Your task to perform on an android device: toggle location history Image 0: 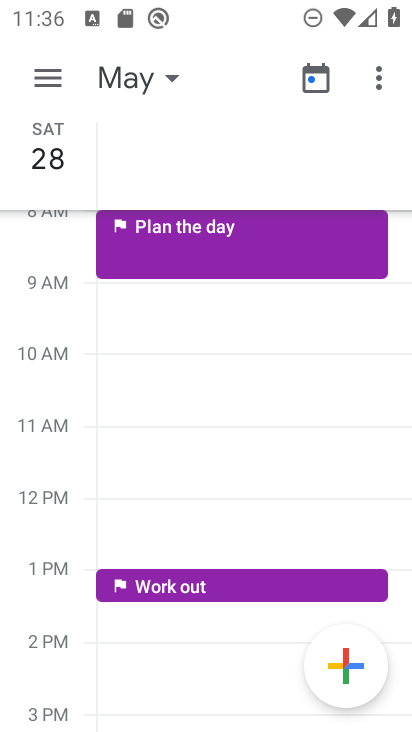
Step 0: press home button
Your task to perform on an android device: toggle location history Image 1: 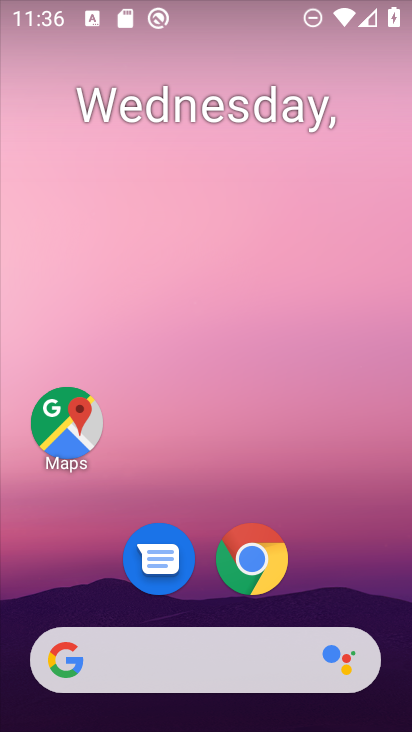
Step 1: drag from (216, 653) to (299, 193)
Your task to perform on an android device: toggle location history Image 2: 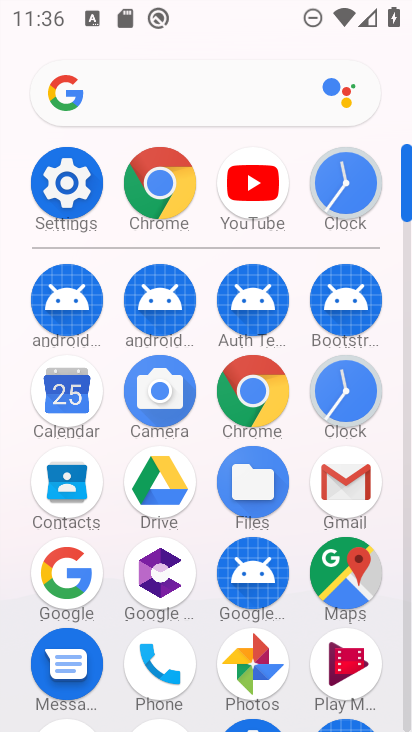
Step 2: click (82, 205)
Your task to perform on an android device: toggle location history Image 3: 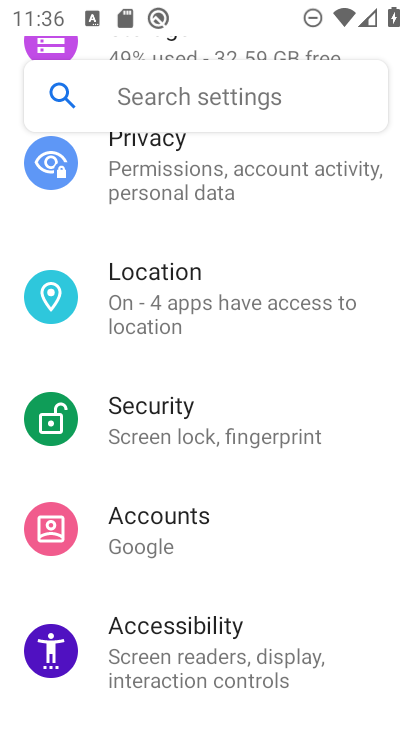
Step 3: click (210, 300)
Your task to perform on an android device: toggle location history Image 4: 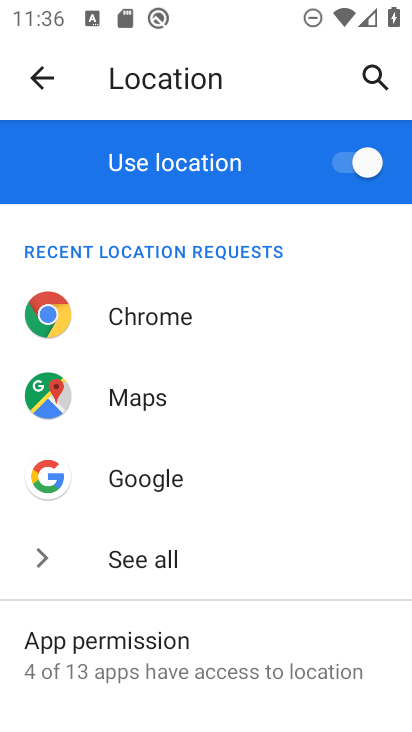
Step 4: drag from (207, 627) to (311, 153)
Your task to perform on an android device: toggle location history Image 5: 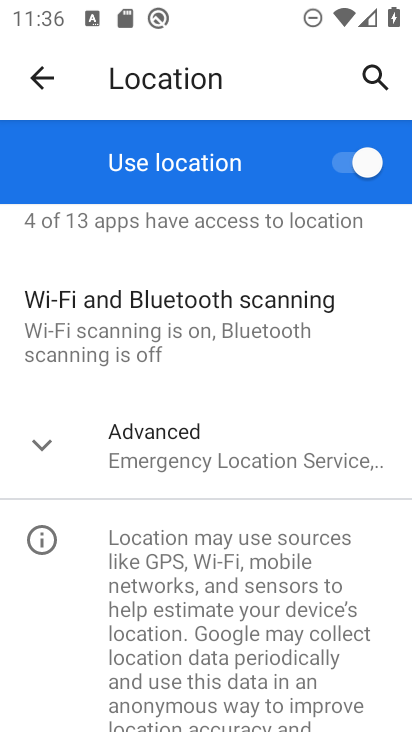
Step 5: click (221, 445)
Your task to perform on an android device: toggle location history Image 6: 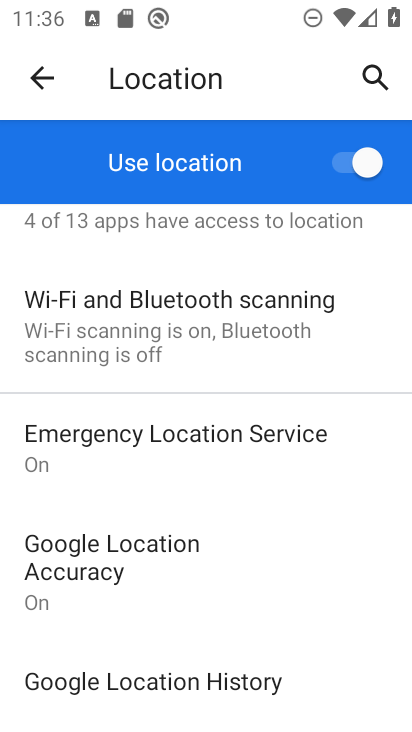
Step 6: click (251, 677)
Your task to perform on an android device: toggle location history Image 7: 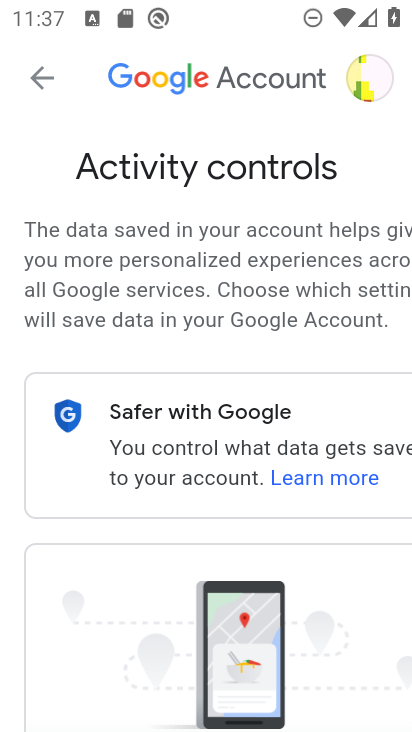
Step 7: drag from (273, 612) to (167, 324)
Your task to perform on an android device: toggle location history Image 8: 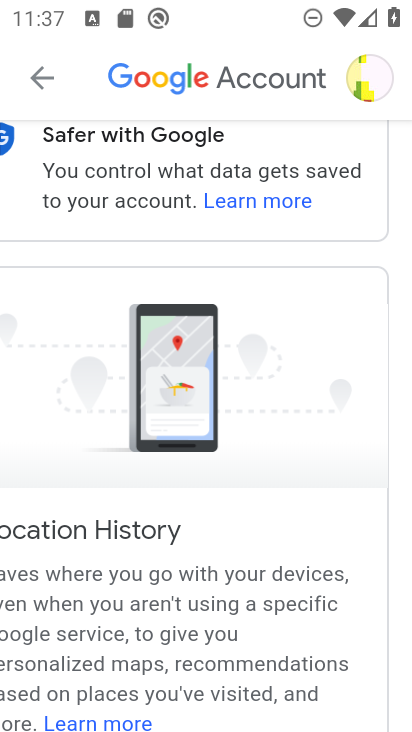
Step 8: drag from (267, 565) to (226, 239)
Your task to perform on an android device: toggle location history Image 9: 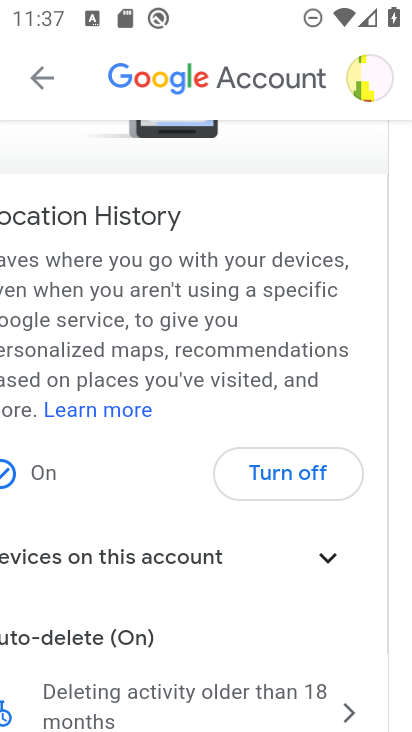
Step 9: click (301, 485)
Your task to perform on an android device: toggle location history Image 10: 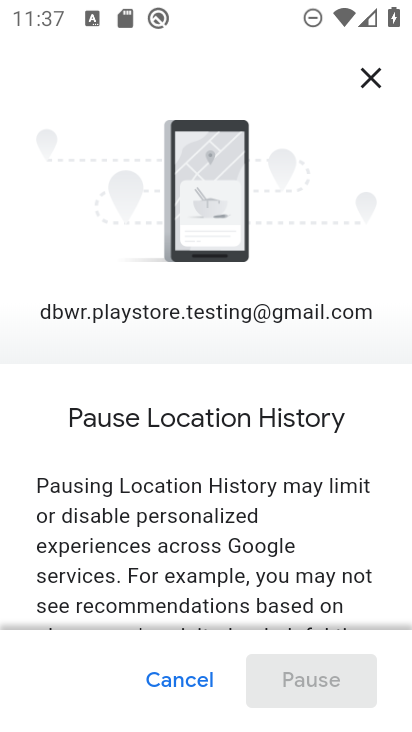
Step 10: drag from (315, 530) to (381, 76)
Your task to perform on an android device: toggle location history Image 11: 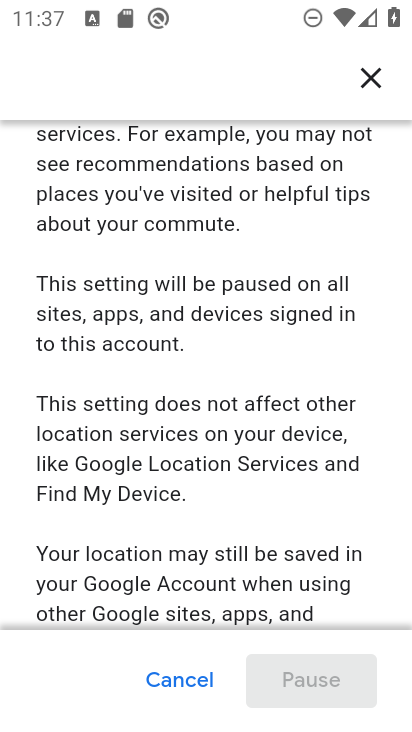
Step 11: drag from (309, 494) to (333, 100)
Your task to perform on an android device: toggle location history Image 12: 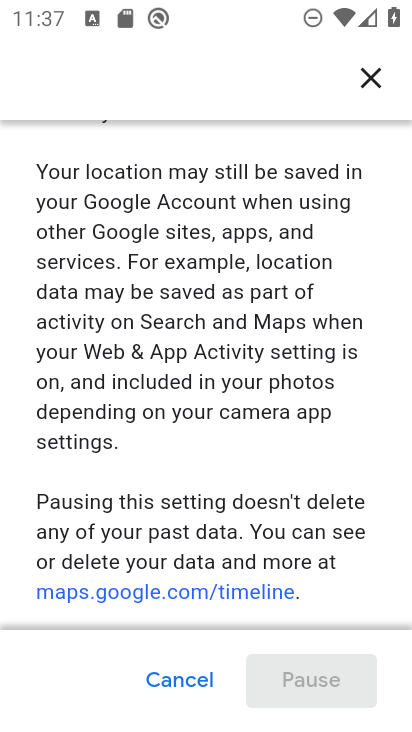
Step 12: drag from (294, 490) to (340, 40)
Your task to perform on an android device: toggle location history Image 13: 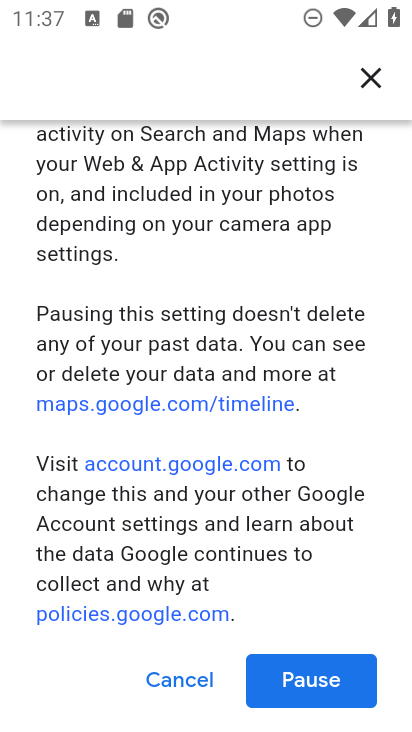
Step 13: click (323, 690)
Your task to perform on an android device: toggle location history Image 14: 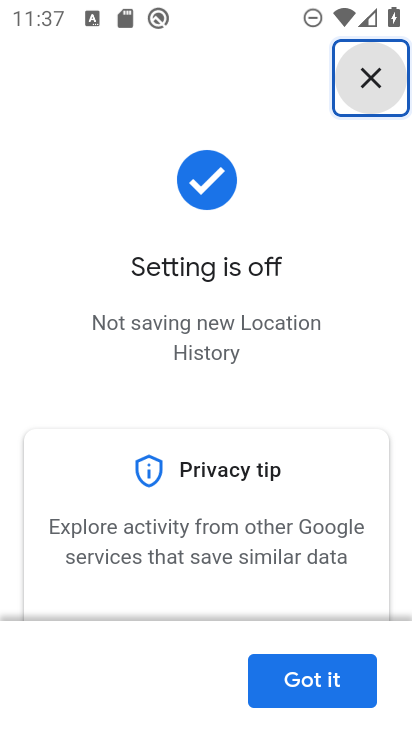
Step 14: click (375, 667)
Your task to perform on an android device: toggle location history Image 15: 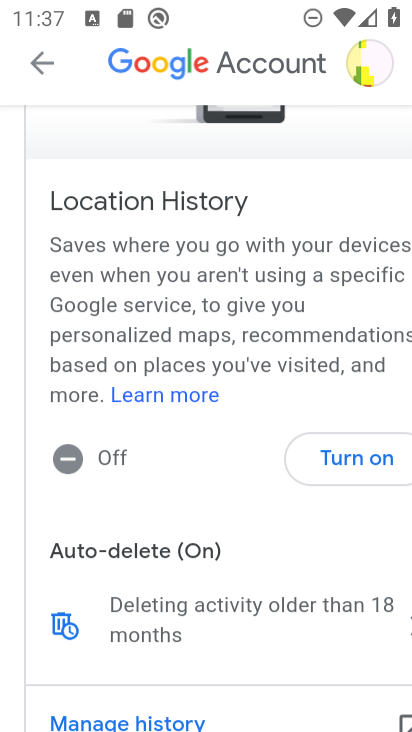
Step 15: task complete